Your task to perform on an android device: Open the calendar and show me this week's events? Image 0: 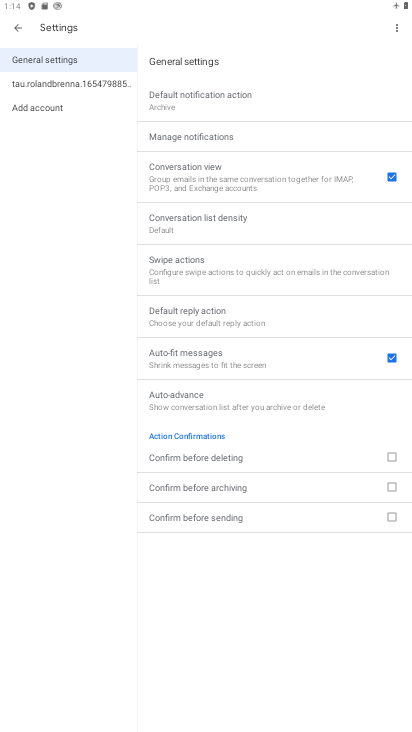
Step 0: press home button
Your task to perform on an android device: Open the calendar and show me this week's events? Image 1: 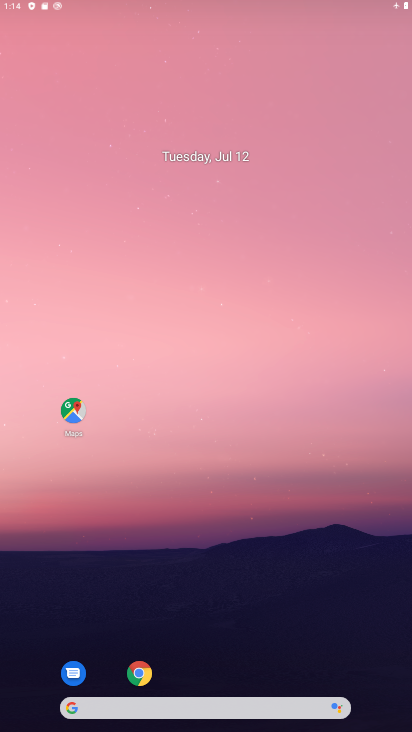
Step 1: drag from (240, 533) to (223, 83)
Your task to perform on an android device: Open the calendar and show me this week's events? Image 2: 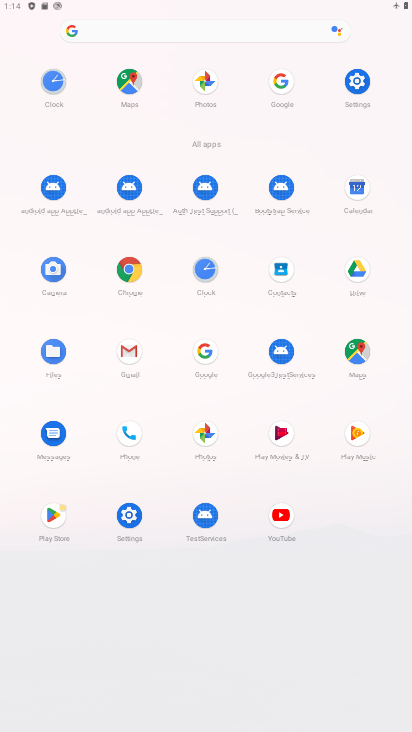
Step 2: click (358, 198)
Your task to perform on an android device: Open the calendar and show me this week's events? Image 3: 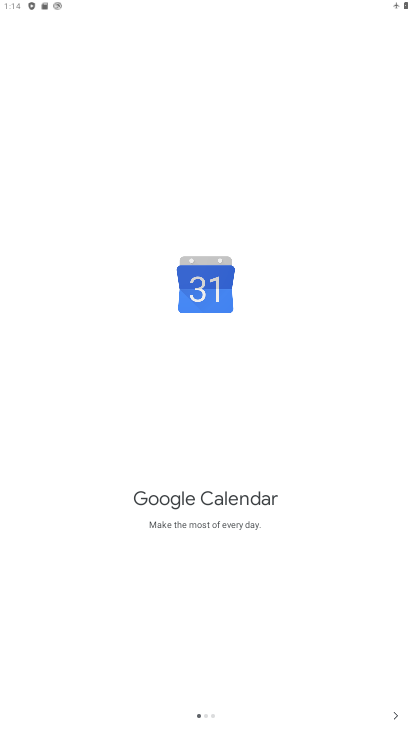
Step 3: click (390, 719)
Your task to perform on an android device: Open the calendar and show me this week's events? Image 4: 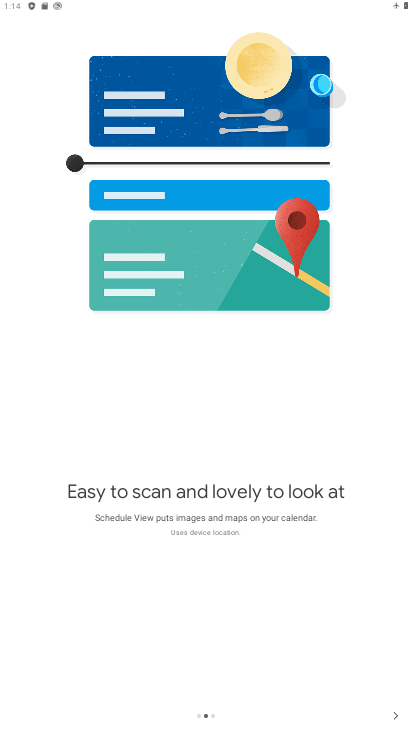
Step 4: click (390, 719)
Your task to perform on an android device: Open the calendar and show me this week's events? Image 5: 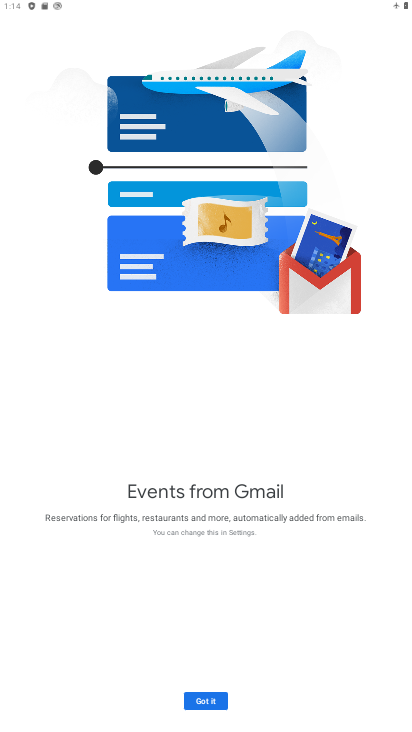
Step 5: click (211, 691)
Your task to perform on an android device: Open the calendar and show me this week's events? Image 6: 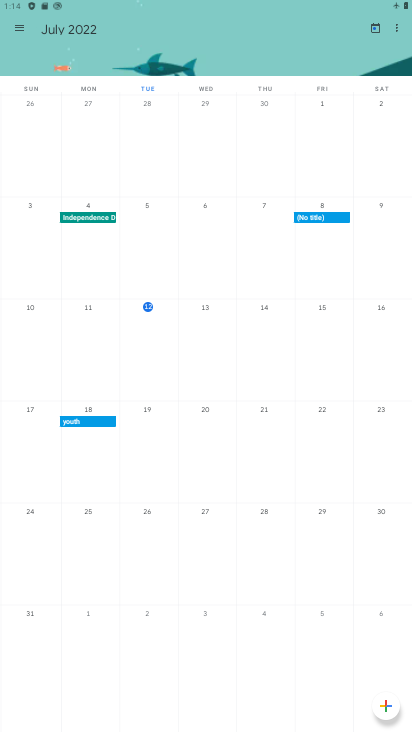
Step 6: drag from (306, 261) to (6, 297)
Your task to perform on an android device: Open the calendar and show me this week's events? Image 7: 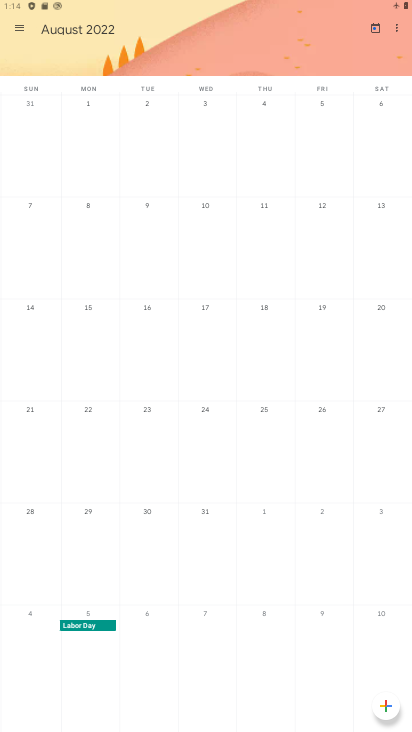
Step 7: drag from (0, 315) to (391, 346)
Your task to perform on an android device: Open the calendar and show me this week's events? Image 8: 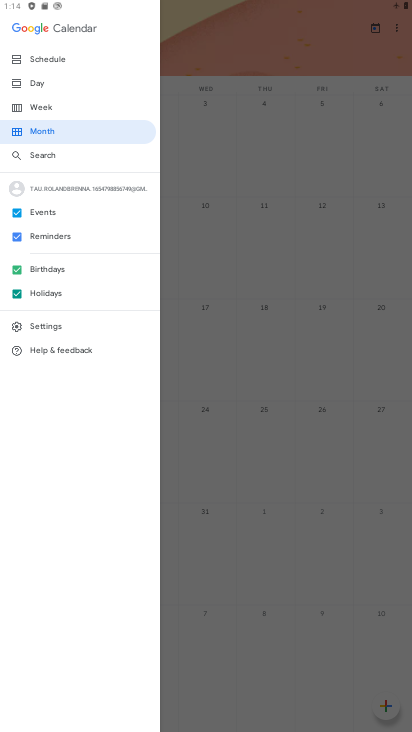
Step 8: click (63, 101)
Your task to perform on an android device: Open the calendar and show me this week's events? Image 9: 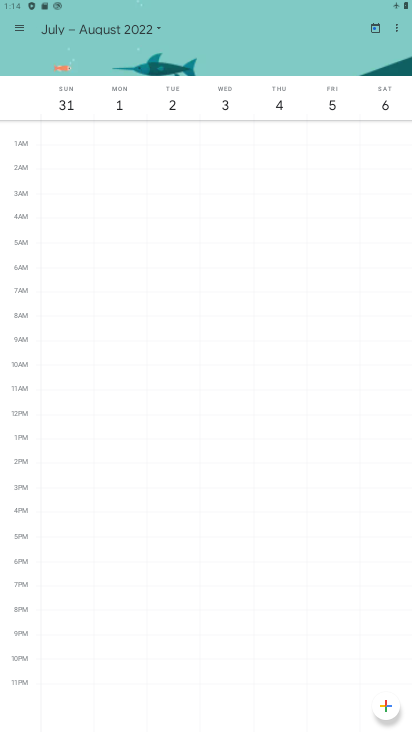
Step 9: task complete